Your task to perform on an android device: open app "Google Sheets" Image 0: 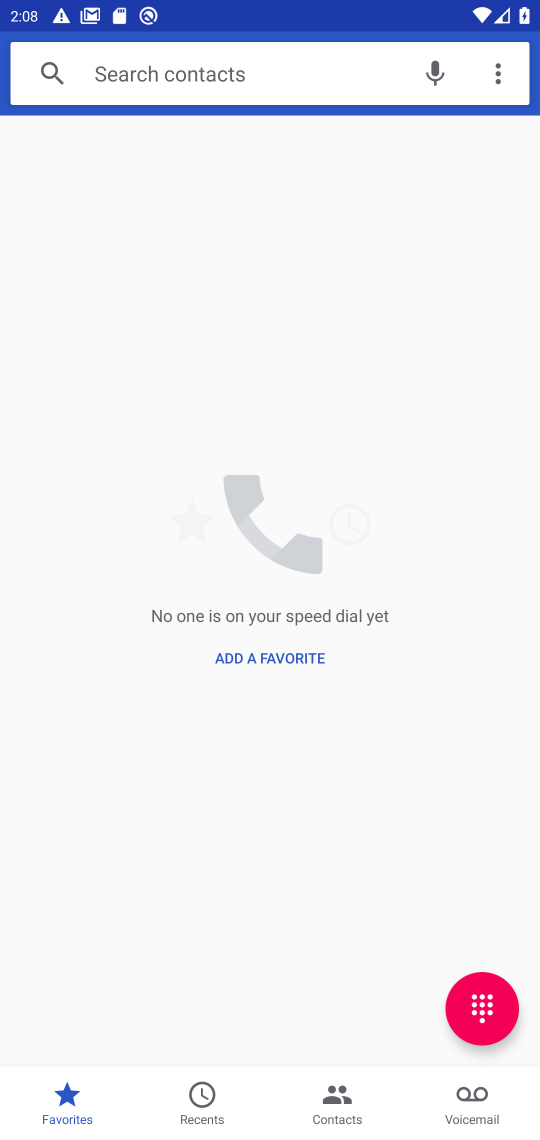
Step 0: press home button
Your task to perform on an android device: open app "Google Sheets" Image 1: 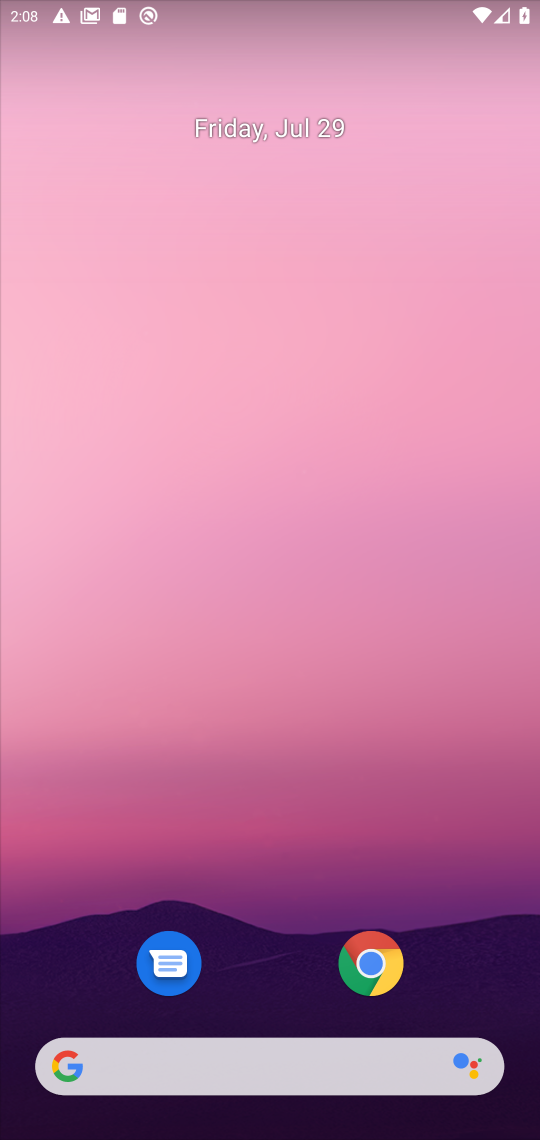
Step 1: drag from (258, 975) to (272, 210)
Your task to perform on an android device: open app "Google Sheets" Image 2: 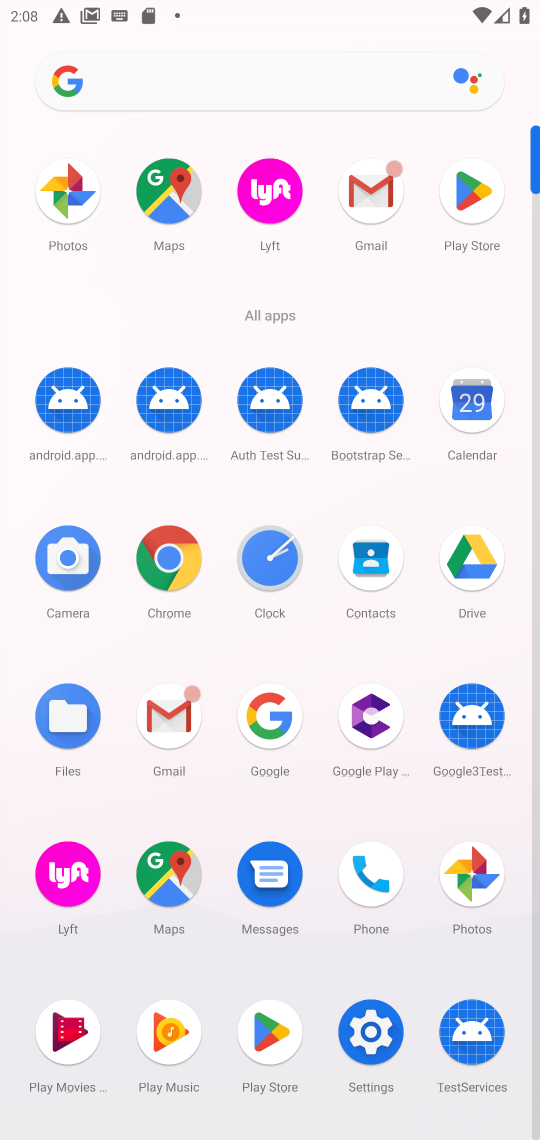
Step 2: click (471, 206)
Your task to perform on an android device: open app "Google Sheets" Image 3: 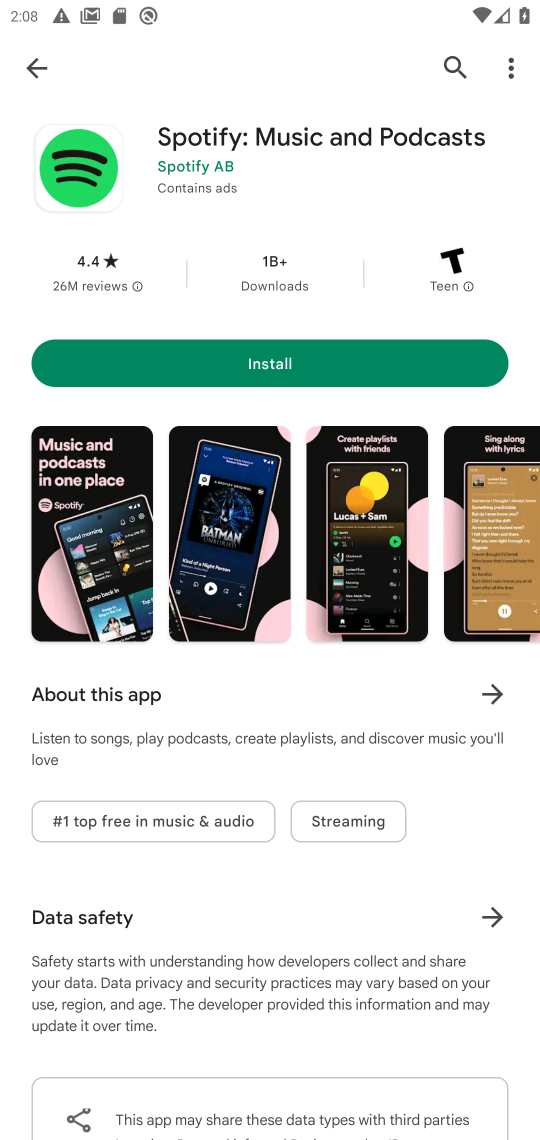
Step 3: click (449, 56)
Your task to perform on an android device: open app "Google Sheets" Image 4: 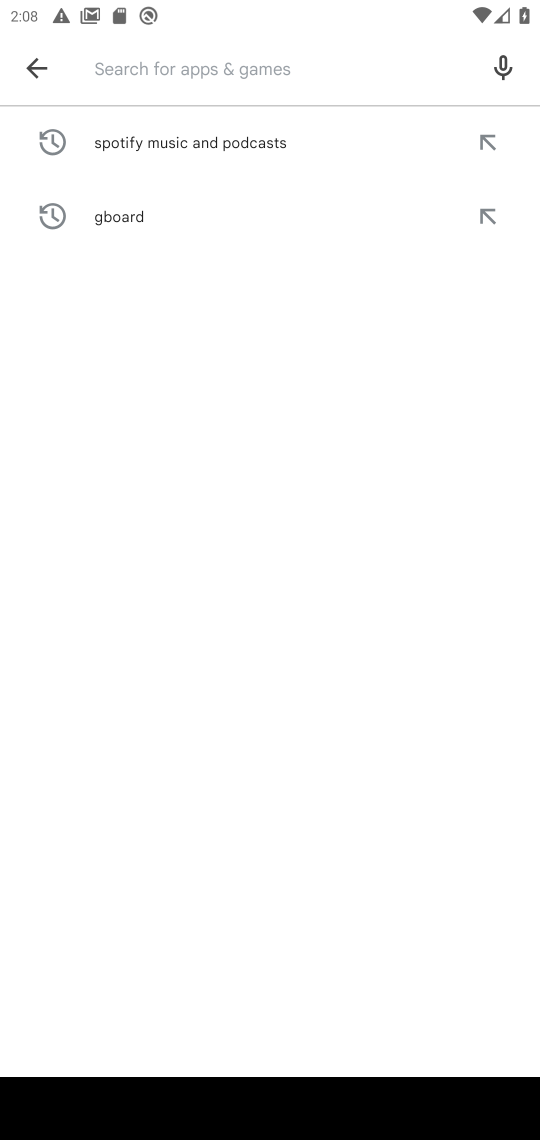
Step 4: type "Google sheets"
Your task to perform on an android device: open app "Google Sheets" Image 5: 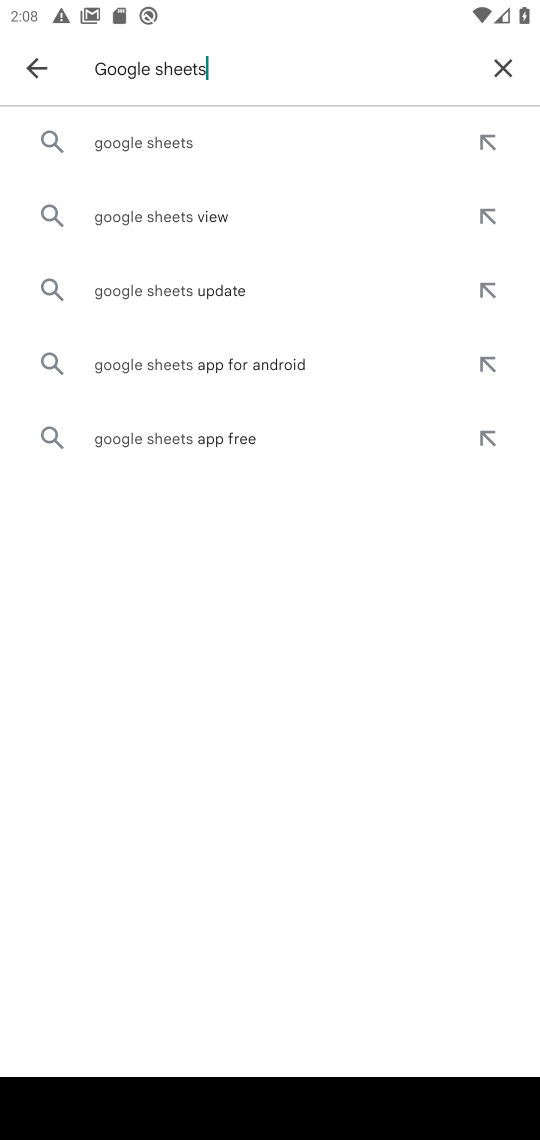
Step 5: click (185, 151)
Your task to perform on an android device: open app "Google Sheets" Image 6: 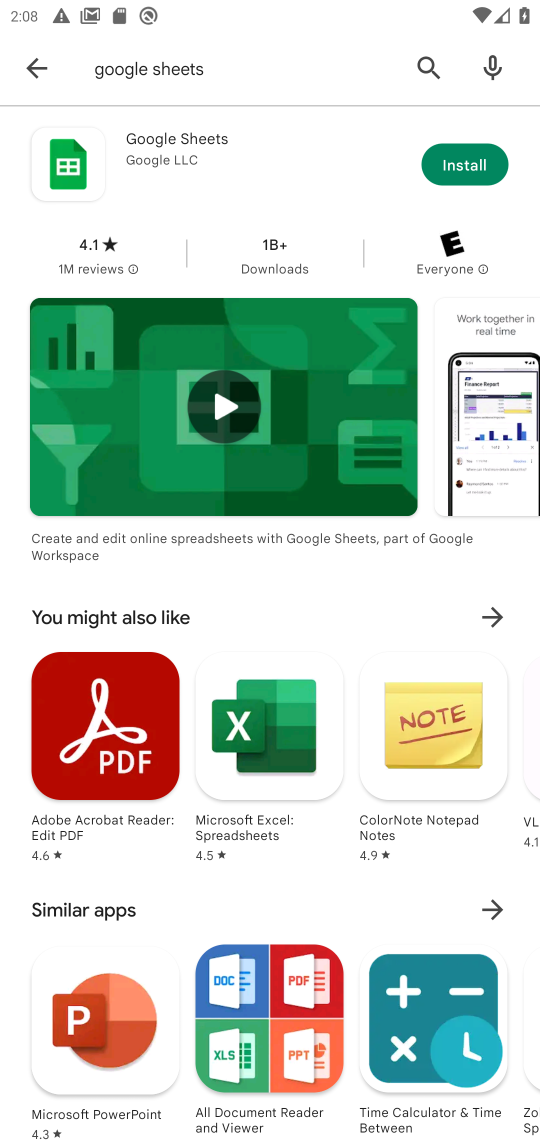
Step 6: click (171, 134)
Your task to perform on an android device: open app "Google Sheets" Image 7: 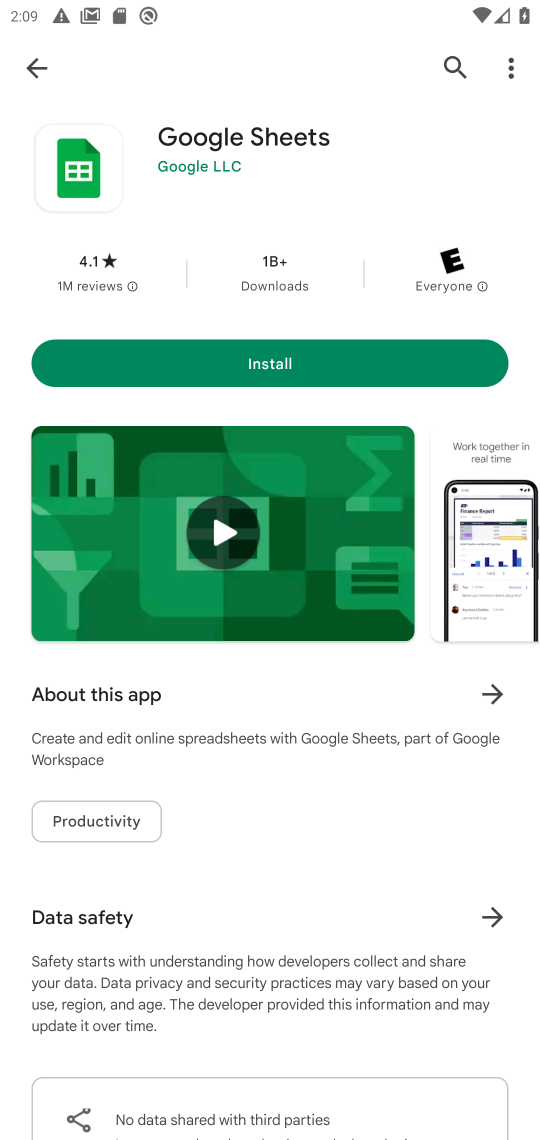
Step 7: task complete